Your task to perform on an android device: What's on my calendar today? Image 0: 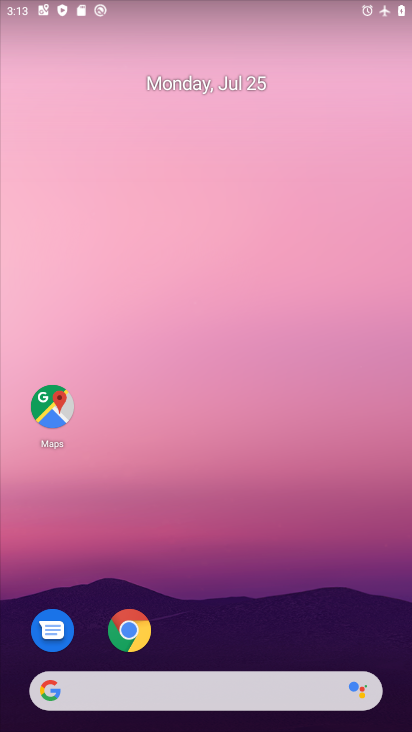
Step 0: drag from (262, 637) to (234, 84)
Your task to perform on an android device: What's on my calendar today? Image 1: 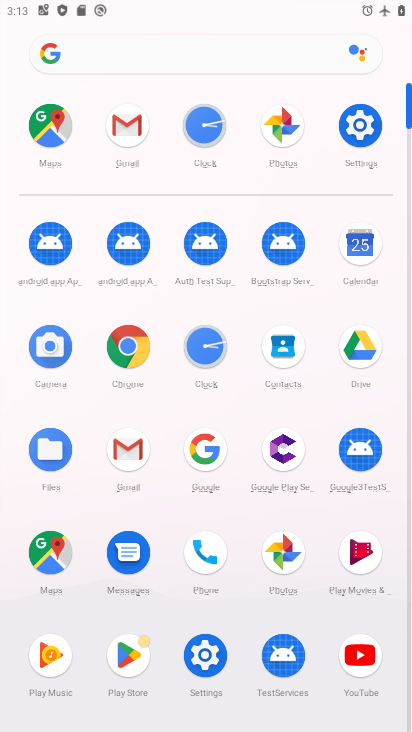
Step 1: click (350, 267)
Your task to perform on an android device: What's on my calendar today? Image 2: 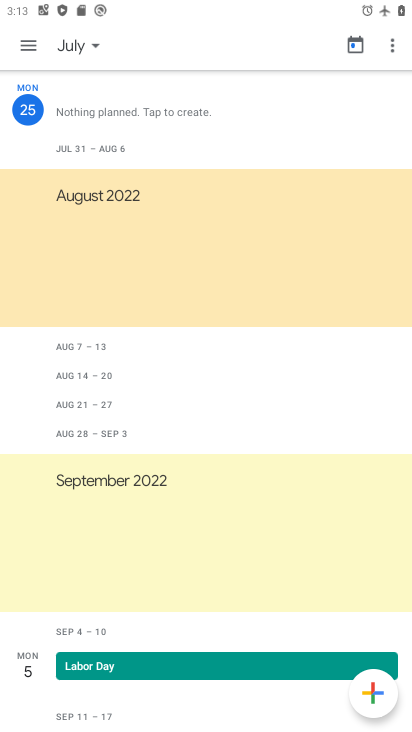
Step 2: task complete